Your task to perform on an android device: Open eBay Image 0: 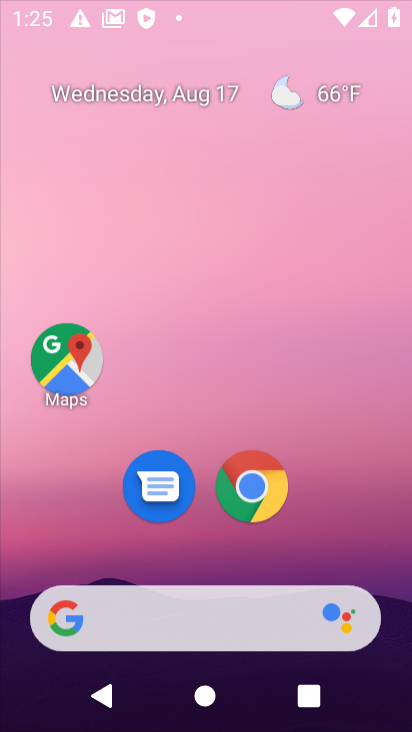
Step 0: press home button
Your task to perform on an android device: Open eBay Image 1: 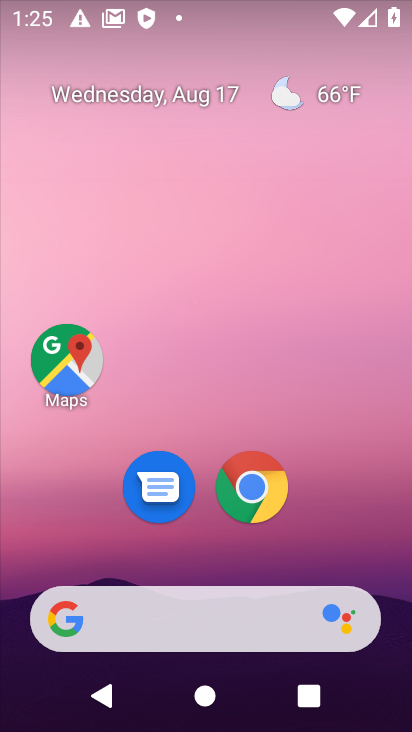
Step 1: click (71, 634)
Your task to perform on an android device: Open eBay Image 2: 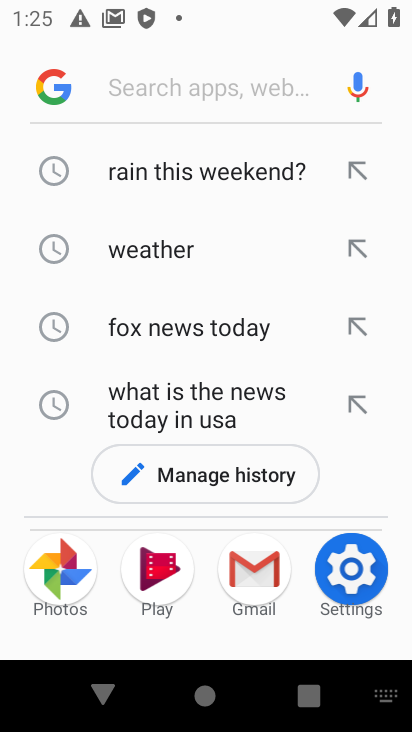
Step 2: type "eBay"
Your task to perform on an android device: Open eBay Image 3: 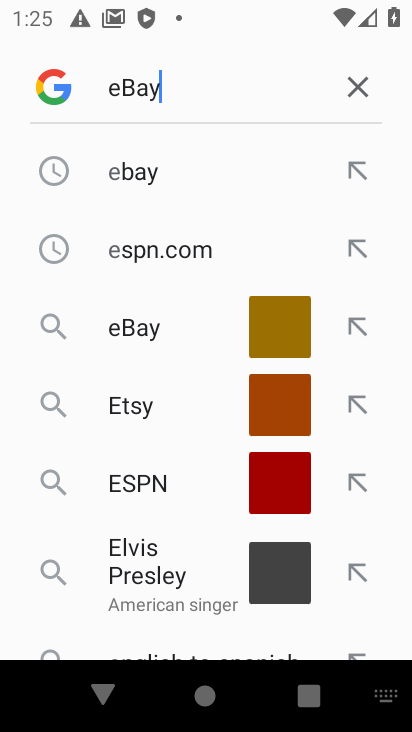
Step 3: press enter
Your task to perform on an android device: Open eBay Image 4: 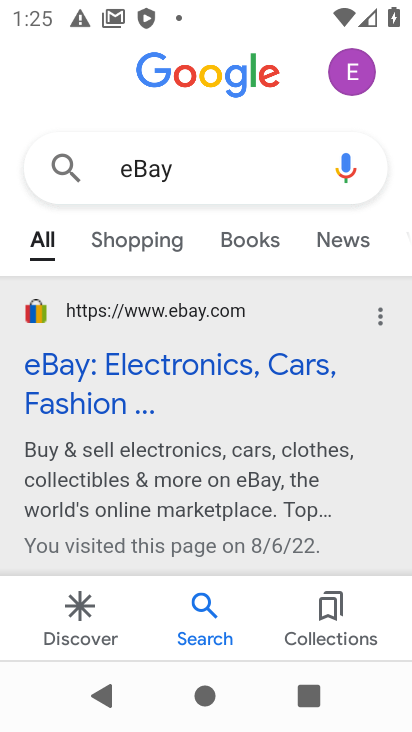
Step 4: click (150, 396)
Your task to perform on an android device: Open eBay Image 5: 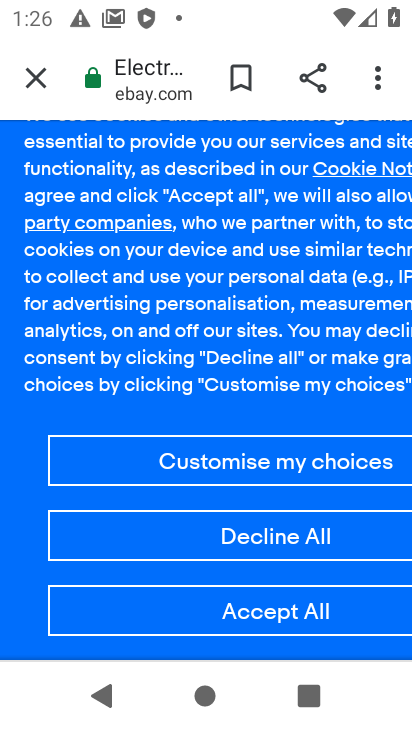
Step 5: click (296, 612)
Your task to perform on an android device: Open eBay Image 6: 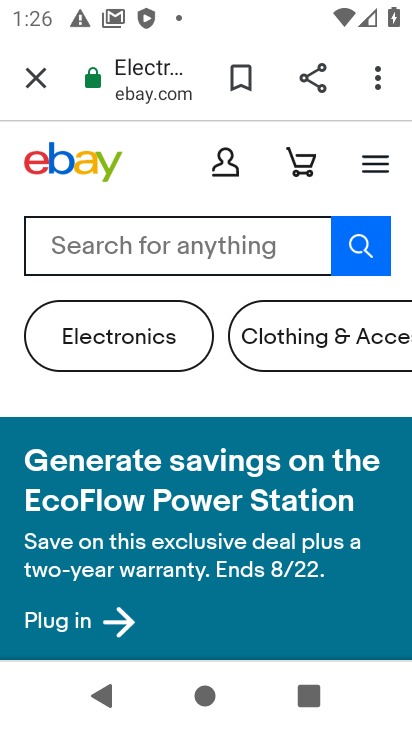
Step 6: task complete